Your task to perform on an android device: toggle notification dots Image 0: 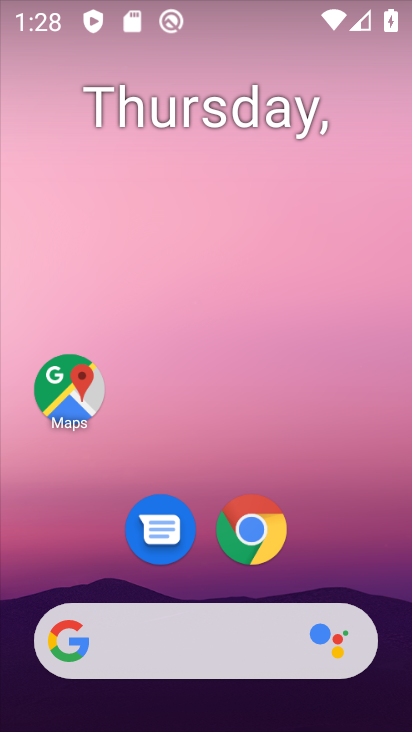
Step 0: drag from (109, 499) to (202, 260)
Your task to perform on an android device: toggle notification dots Image 1: 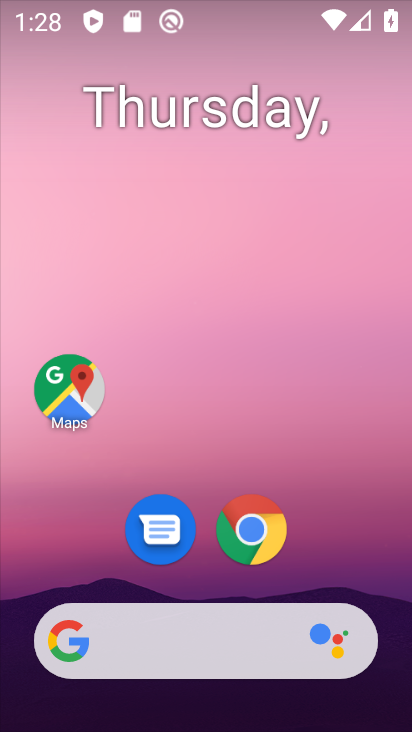
Step 1: drag from (117, 506) to (283, 215)
Your task to perform on an android device: toggle notification dots Image 2: 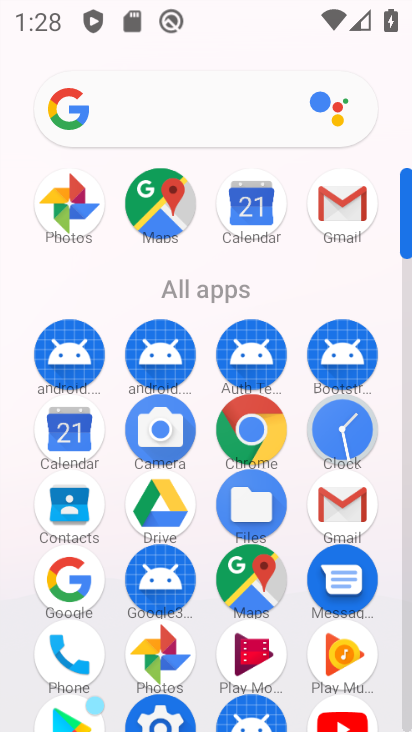
Step 2: drag from (94, 607) to (197, 280)
Your task to perform on an android device: toggle notification dots Image 3: 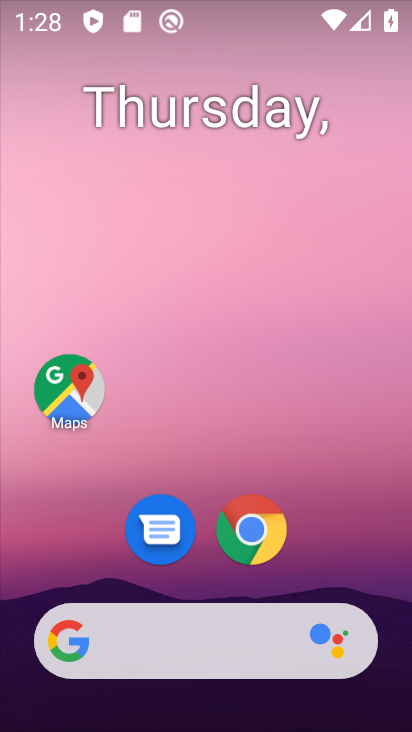
Step 3: drag from (149, 392) to (182, 307)
Your task to perform on an android device: toggle notification dots Image 4: 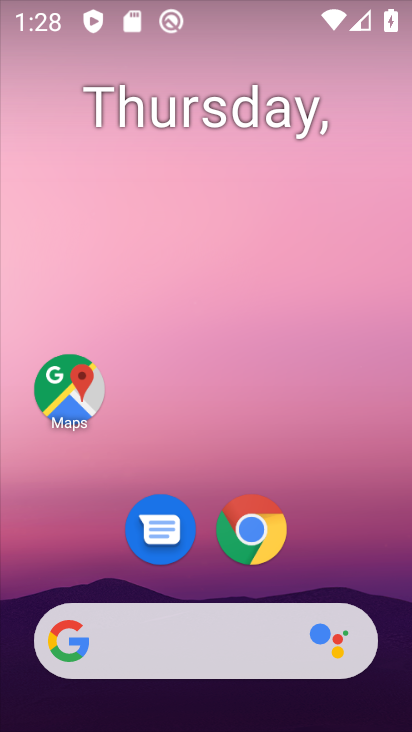
Step 4: drag from (40, 613) to (272, 180)
Your task to perform on an android device: toggle notification dots Image 5: 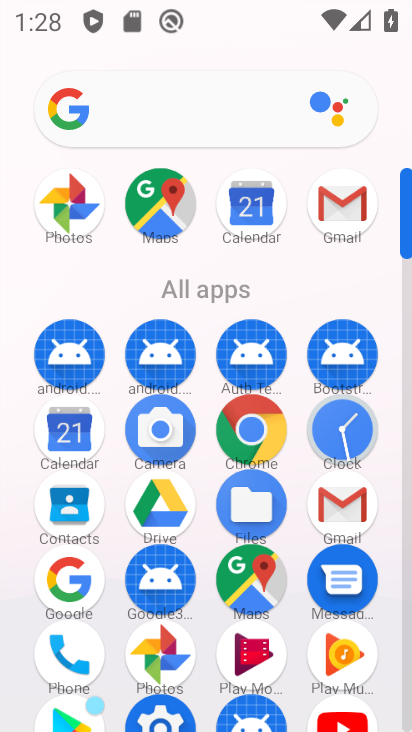
Step 5: click (157, 707)
Your task to perform on an android device: toggle notification dots Image 6: 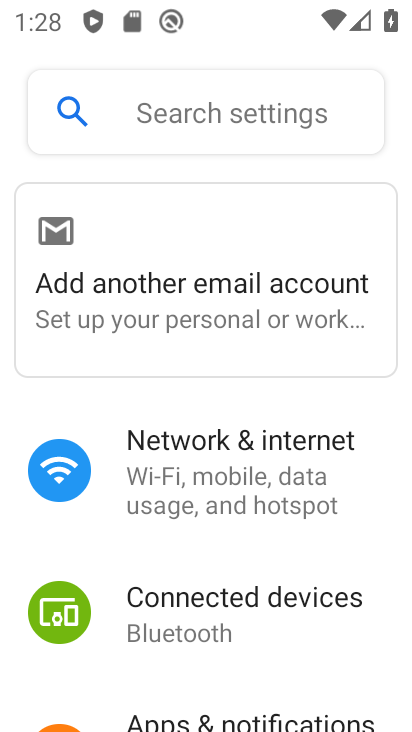
Step 6: drag from (150, 661) to (292, 263)
Your task to perform on an android device: toggle notification dots Image 7: 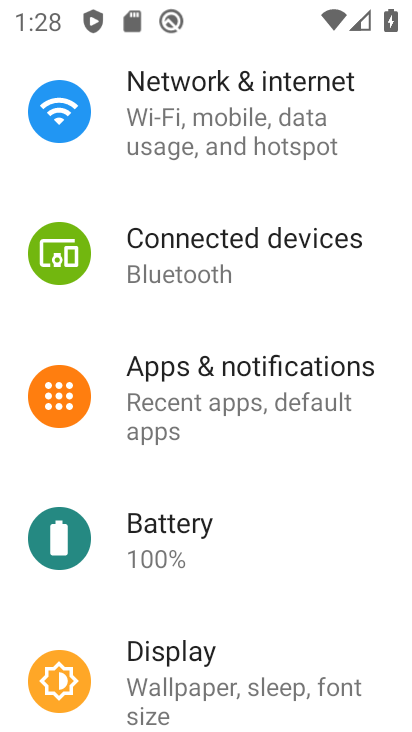
Step 7: click (184, 362)
Your task to perform on an android device: toggle notification dots Image 8: 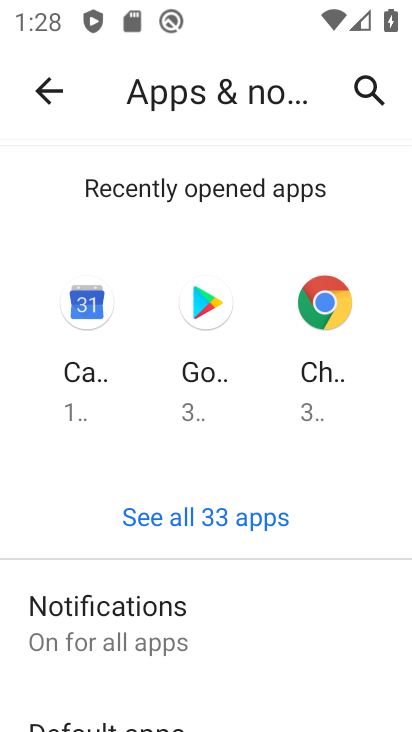
Step 8: drag from (154, 676) to (252, 376)
Your task to perform on an android device: toggle notification dots Image 9: 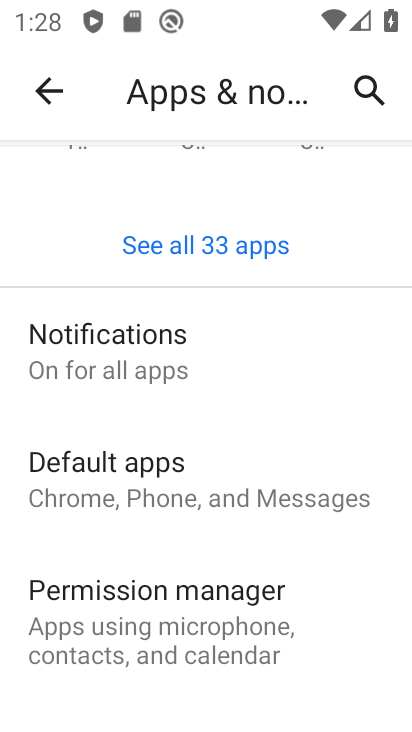
Step 9: drag from (40, 653) to (174, 345)
Your task to perform on an android device: toggle notification dots Image 10: 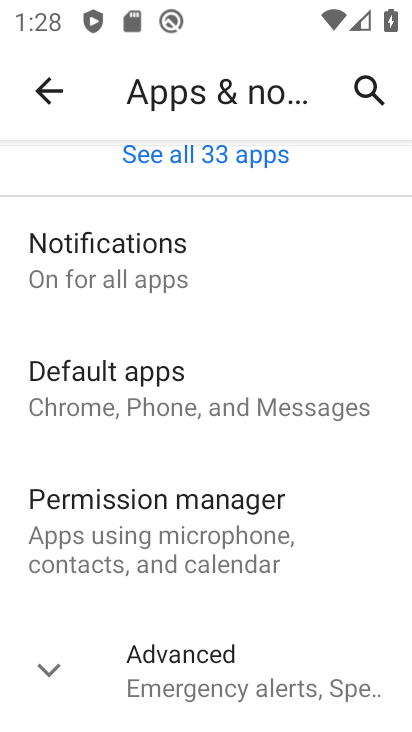
Step 10: click (163, 274)
Your task to perform on an android device: toggle notification dots Image 11: 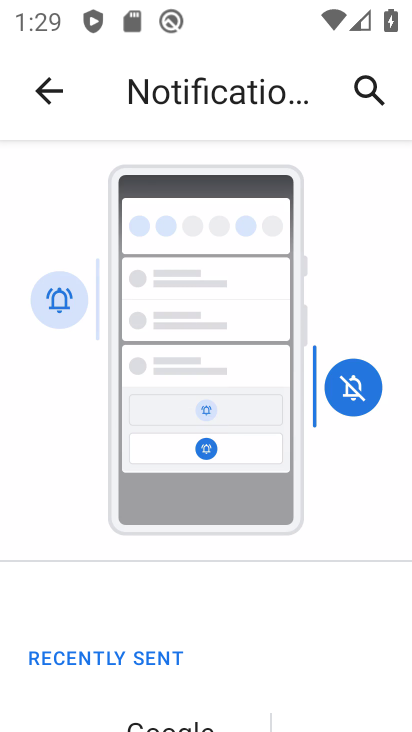
Step 11: drag from (98, 731) to (239, 369)
Your task to perform on an android device: toggle notification dots Image 12: 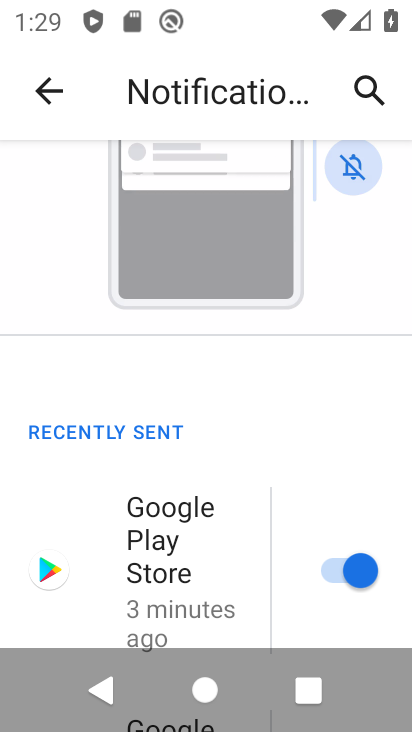
Step 12: drag from (95, 648) to (187, 365)
Your task to perform on an android device: toggle notification dots Image 13: 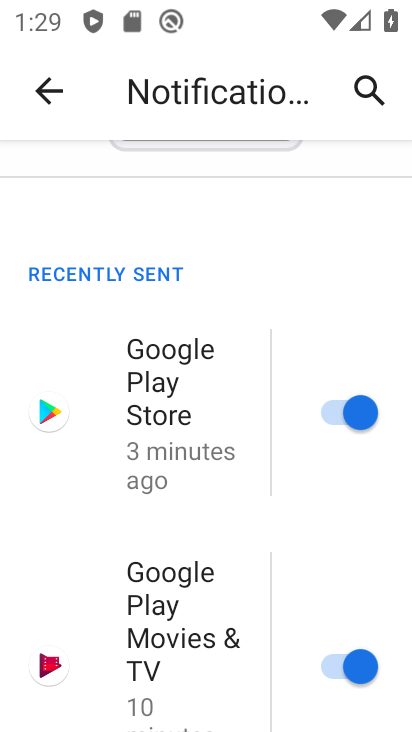
Step 13: drag from (33, 414) to (135, 267)
Your task to perform on an android device: toggle notification dots Image 14: 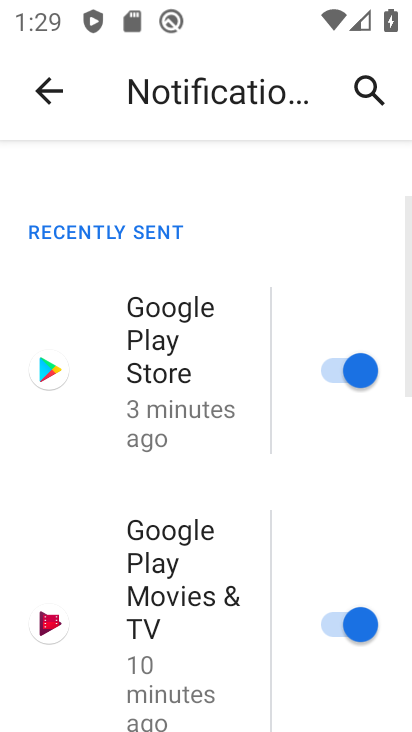
Step 14: drag from (21, 700) to (184, 352)
Your task to perform on an android device: toggle notification dots Image 15: 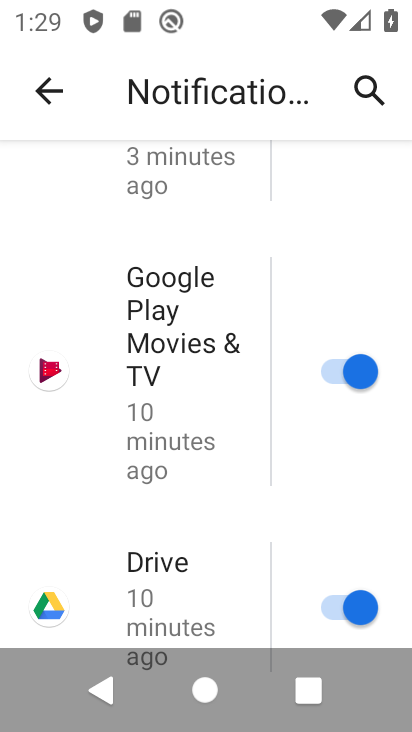
Step 15: drag from (67, 595) to (310, 285)
Your task to perform on an android device: toggle notification dots Image 16: 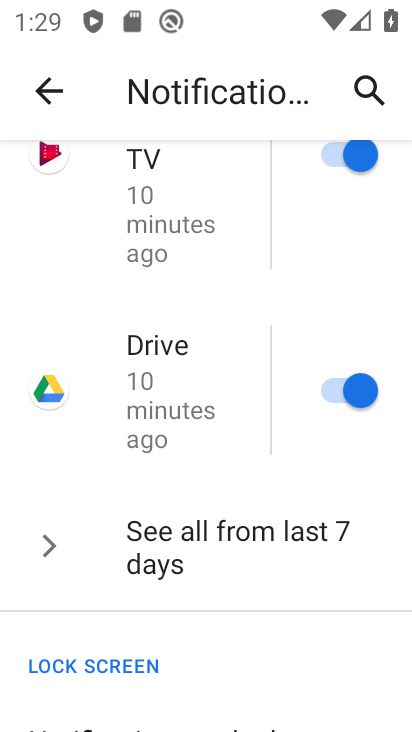
Step 16: drag from (122, 529) to (397, 227)
Your task to perform on an android device: toggle notification dots Image 17: 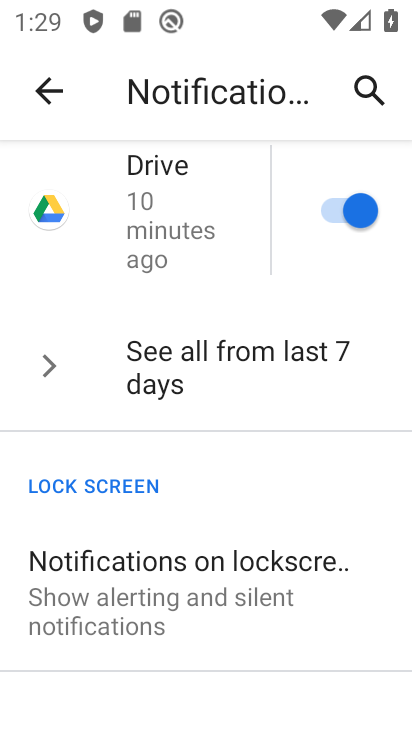
Step 17: drag from (165, 654) to (328, 200)
Your task to perform on an android device: toggle notification dots Image 18: 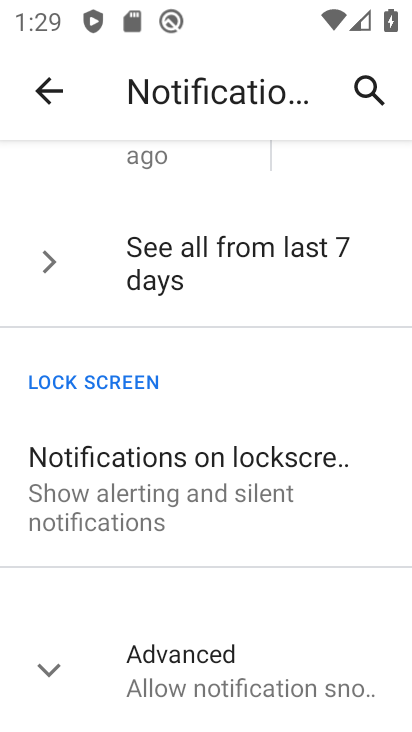
Step 18: click (291, 676)
Your task to perform on an android device: toggle notification dots Image 19: 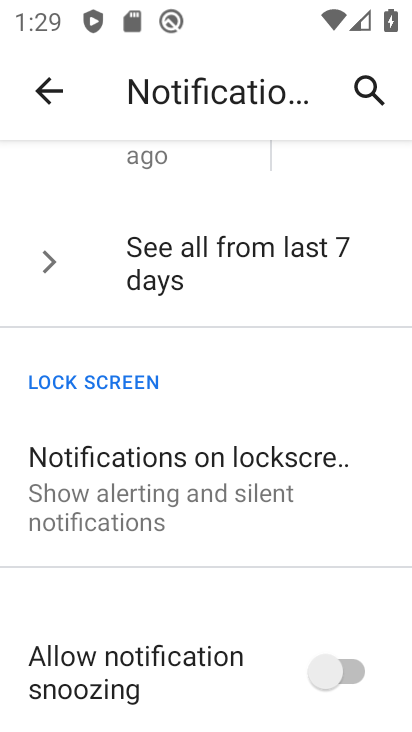
Step 19: drag from (80, 614) to (247, 322)
Your task to perform on an android device: toggle notification dots Image 20: 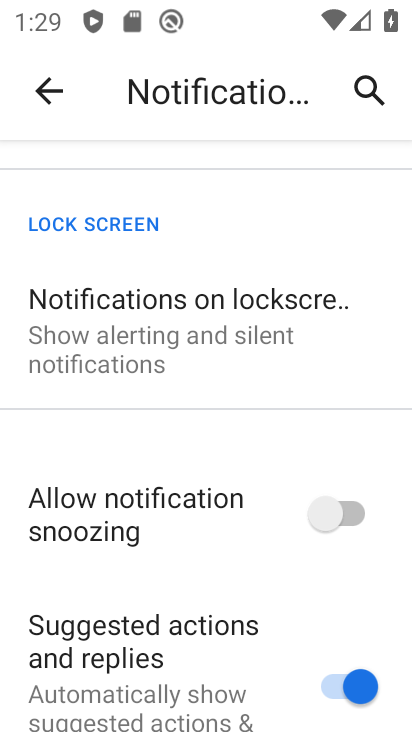
Step 20: drag from (159, 671) to (311, 340)
Your task to perform on an android device: toggle notification dots Image 21: 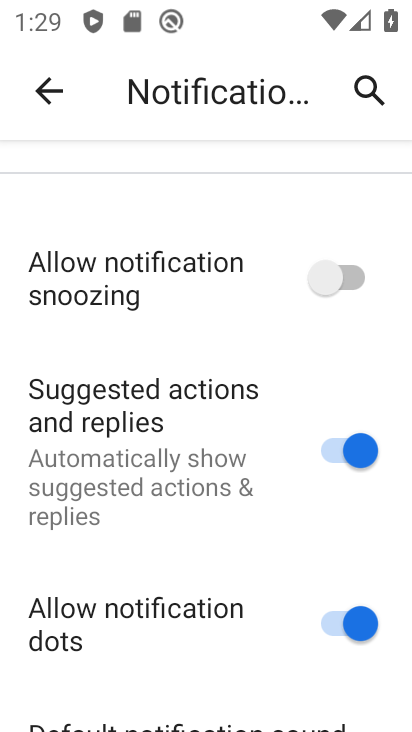
Step 21: drag from (157, 655) to (270, 424)
Your task to perform on an android device: toggle notification dots Image 22: 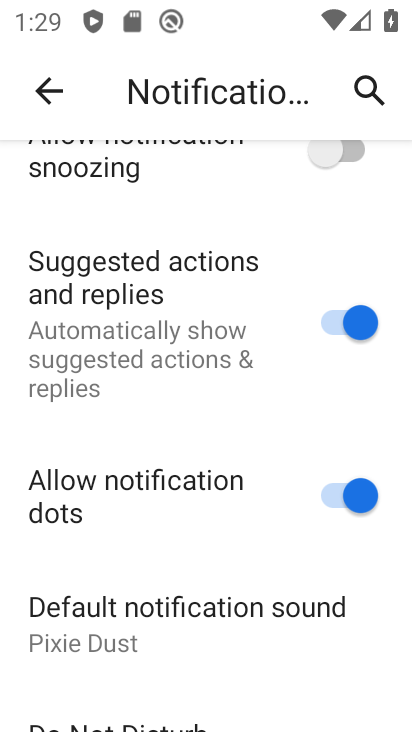
Step 22: click (365, 500)
Your task to perform on an android device: toggle notification dots Image 23: 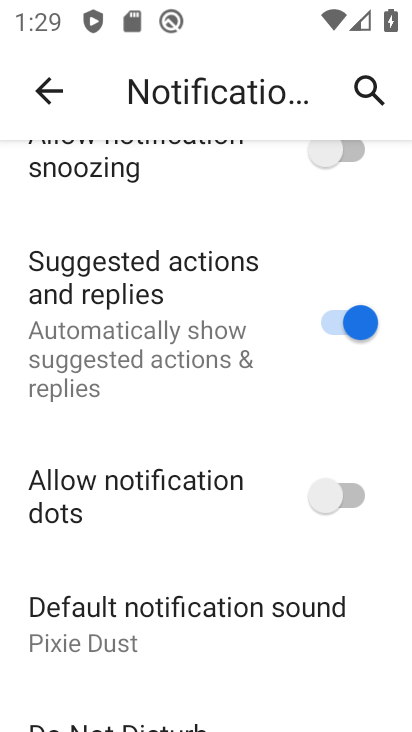
Step 23: task complete